Your task to perform on an android device: set the timer Image 0: 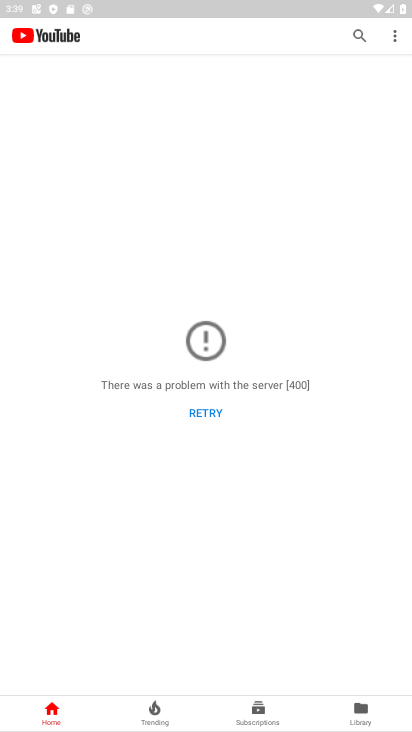
Step 0: press home button
Your task to perform on an android device: set the timer Image 1: 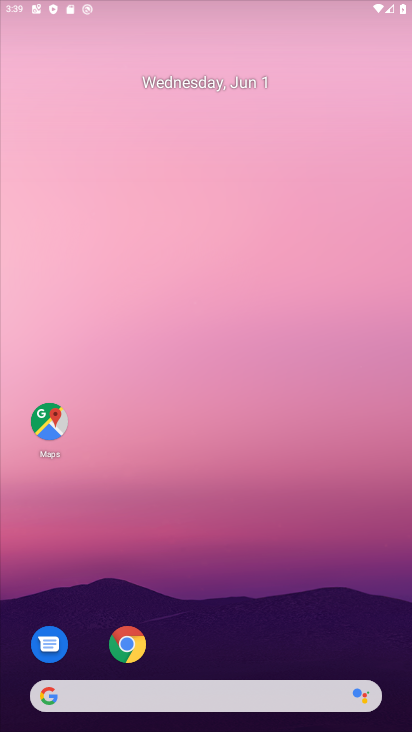
Step 1: drag from (306, 431) to (315, 136)
Your task to perform on an android device: set the timer Image 2: 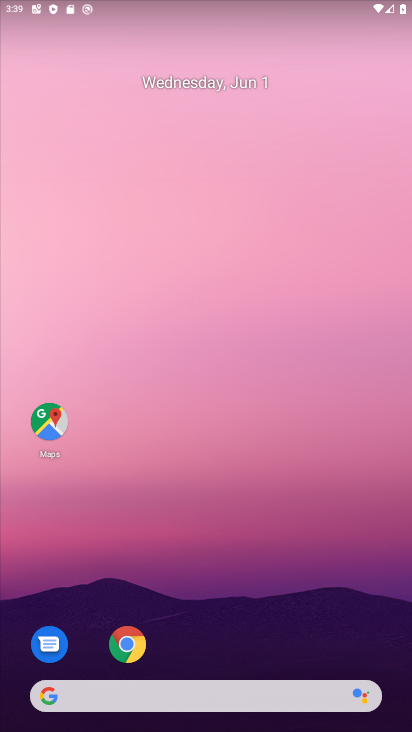
Step 2: drag from (282, 535) to (311, 141)
Your task to perform on an android device: set the timer Image 3: 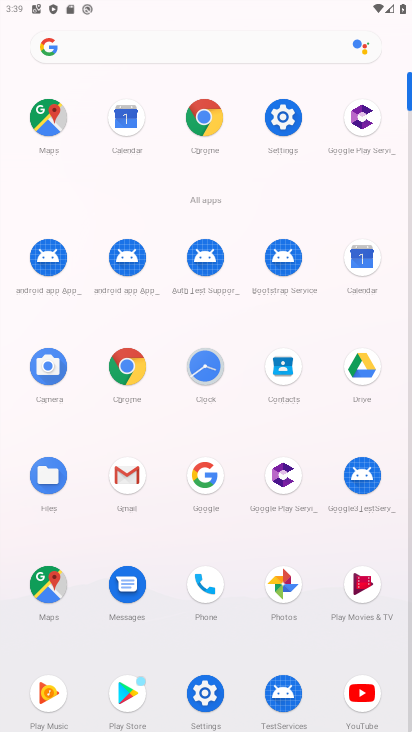
Step 3: click (204, 363)
Your task to perform on an android device: set the timer Image 4: 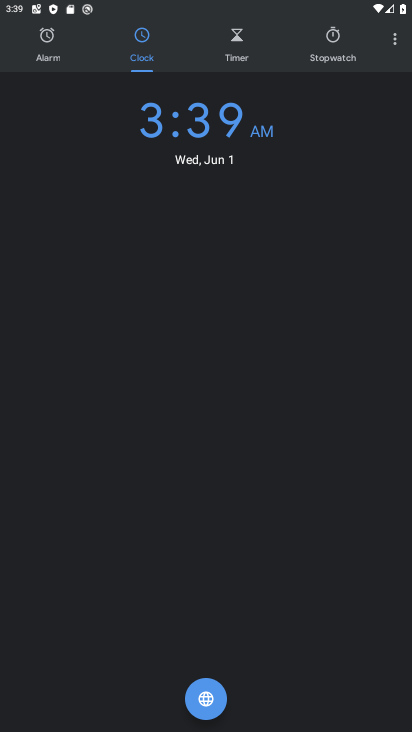
Step 4: click (238, 35)
Your task to perform on an android device: set the timer Image 5: 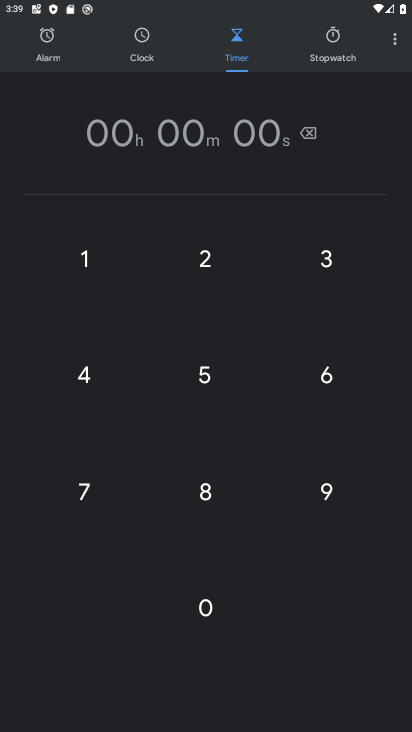
Step 5: click (80, 264)
Your task to perform on an android device: set the timer Image 6: 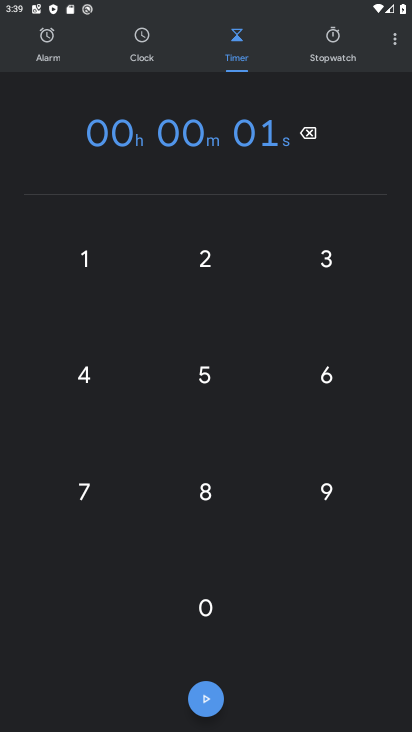
Step 6: click (197, 268)
Your task to perform on an android device: set the timer Image 7: 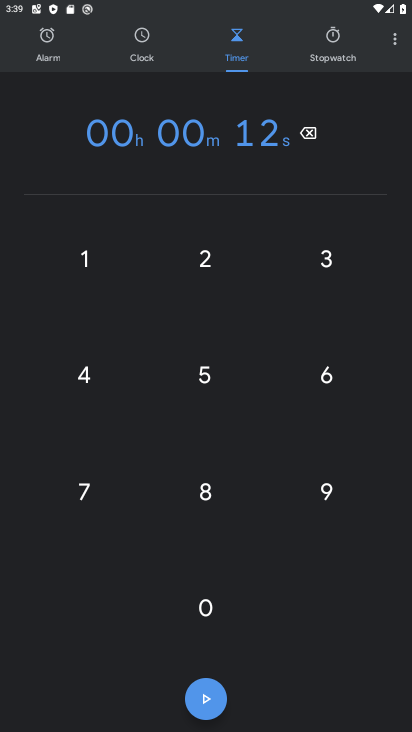
Step 7: click (213, 385)
Your task to perform on an android device: set the timer Image 8: 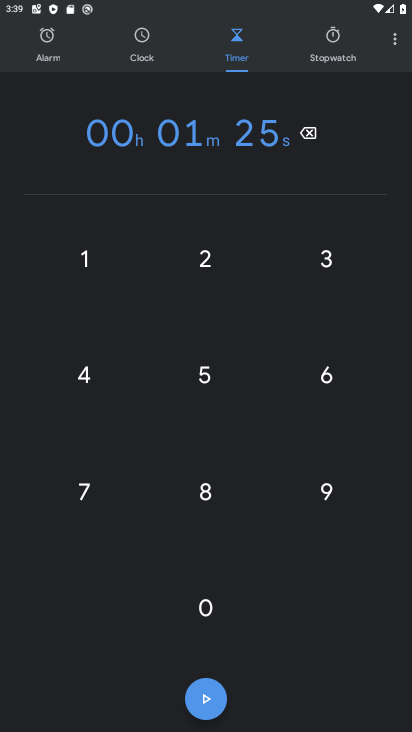
Step 8: click (203, 471)
Your task to perform on an android device: set the timer Image 9: 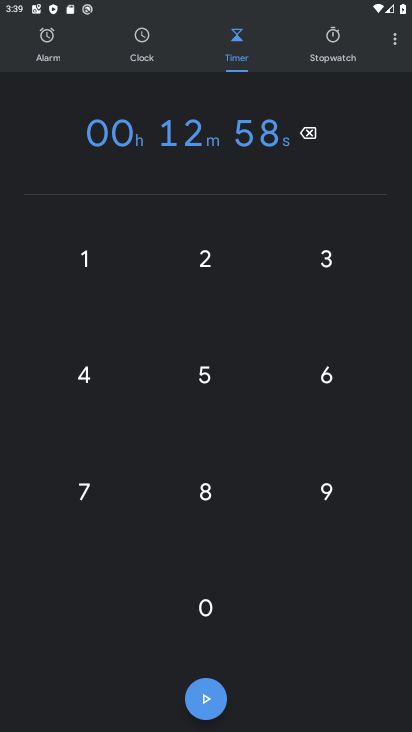
Step 9: click (212, 264)
Your task to perform on an android device: set the timer Image 10: 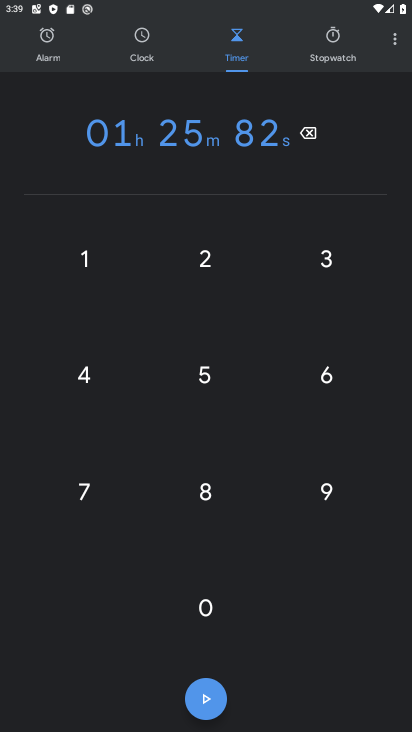
Step 10: click (211, 702)
Your task to perform on an android device: set the timer Image 11: 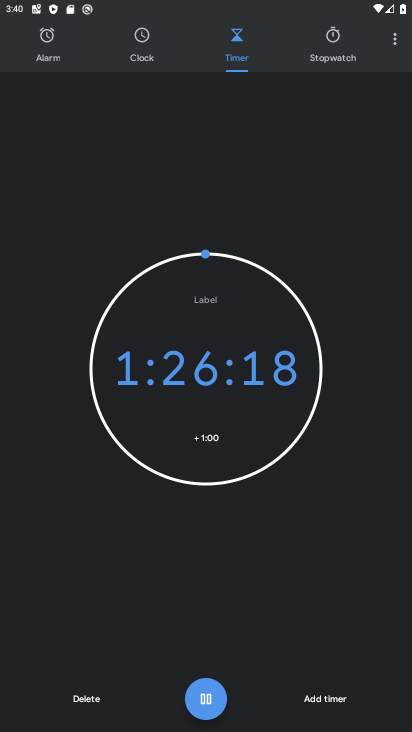
Step 11: task complete